Your task to perform on an android device: Go to ESPN.com Image 0: 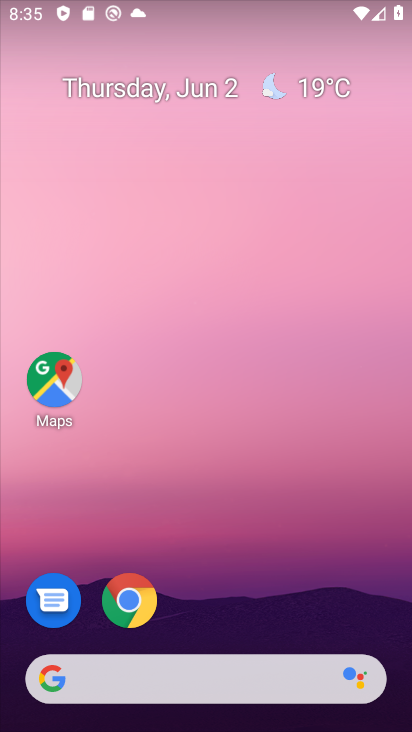
Step 0: click (134, 623)
Your task to perform on an android device: Go to ESPN.com Image 1: 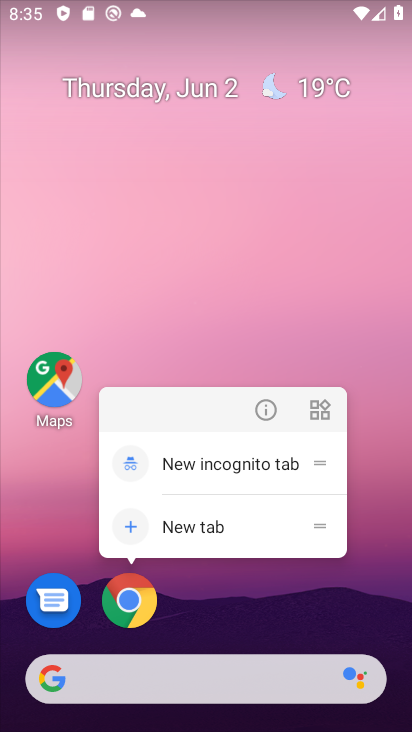
Step 1: click (125, 604)
Your task to perform on an android device: Go to ESPN.com Image 2: 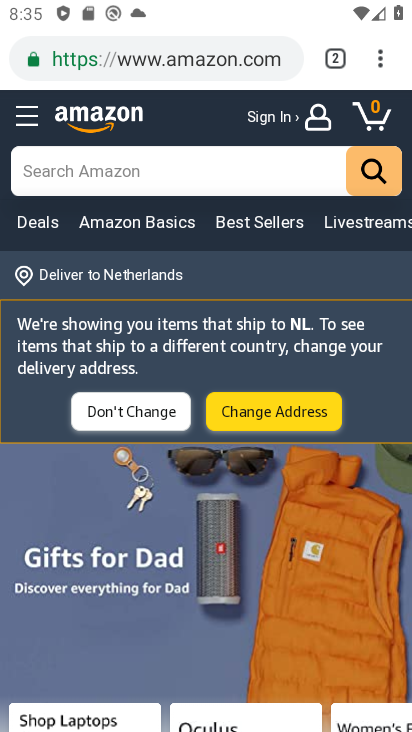
Step 2: click (328, 69)
Your task to perform on an android device: Go to ESPN.com Image 3: 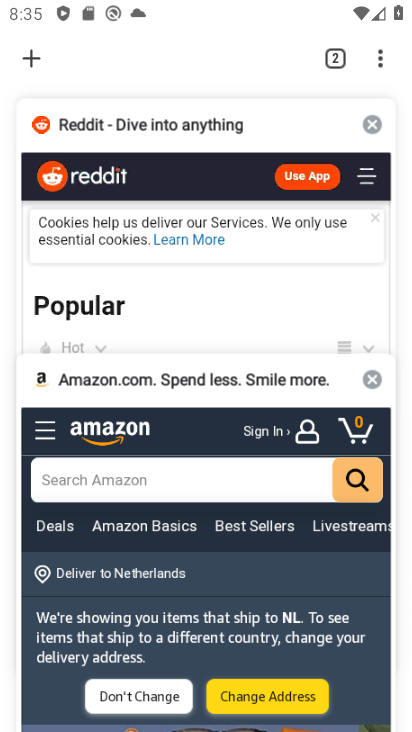
Step 3: click (26, 65)
Your task to perform on an android device: Go to ESPN.com Image 4: 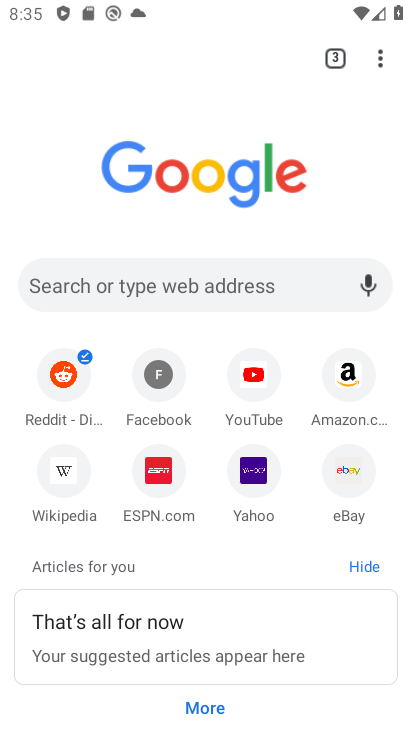
Step 4: click (154, 295)
Your task to perform on an android device: Go to ESPN.com Image 5: 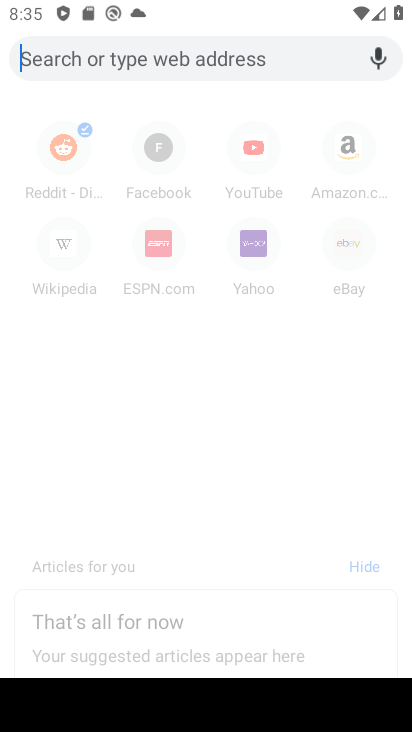
Step 5: click (164, 245)
Your task to perform on an android device: Go to ESPN.com Image 6: 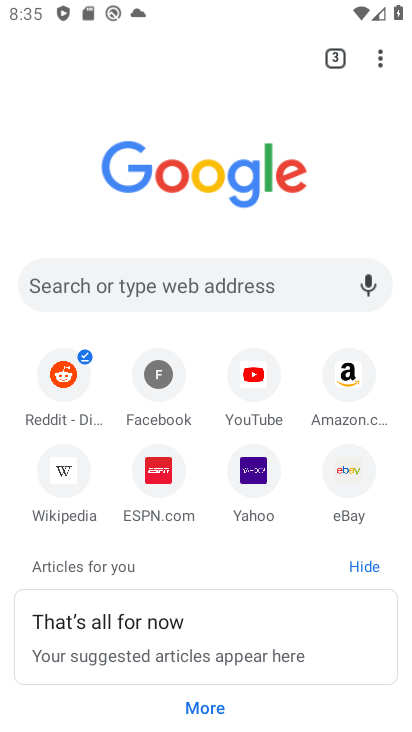
Step 6: click (167, 504)
Your task to perform on an android device: Go to ESPN.com Image 7: 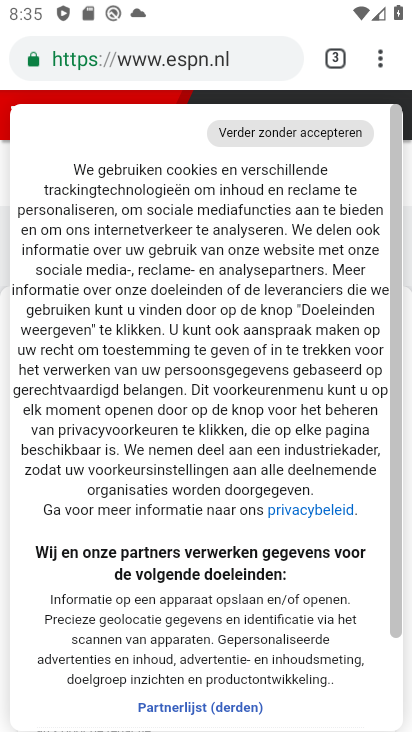
Step 7: task complete